Your task to perform on an android device: Open Yahoo.com Image 0: 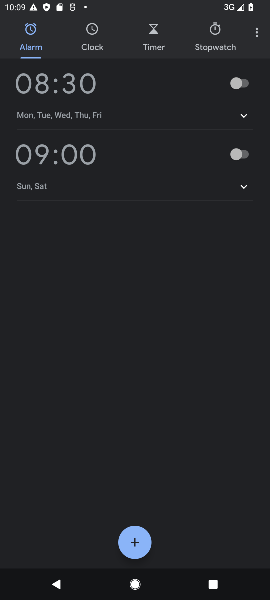
Step 0: press home button
Your task to perform on an android device: Open Yahoo.com Image 1: 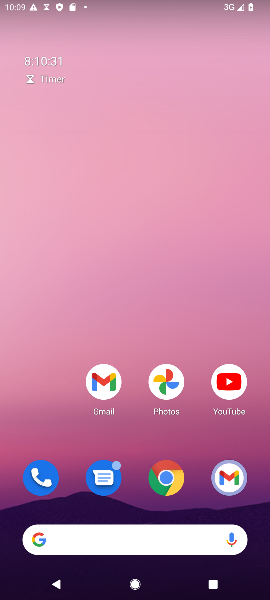
Step 1: click (169, 485)
Your task to perform on an android device: Open Yahoo.com Image 2: 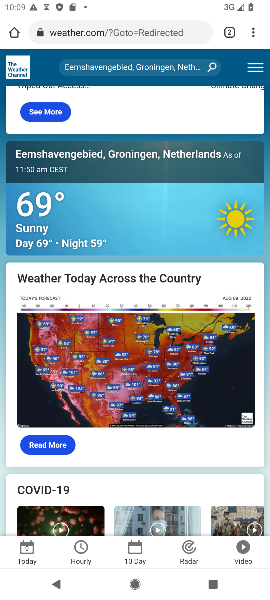
Step 2: click (225, 35)
Your task to perform on an android device: Open Yahoo.com Image 3: 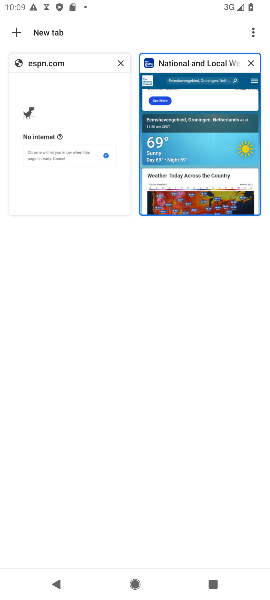
Step 3: click (52, 34)
Your task to perform on an android device: Open Yahoo.com Image 4: 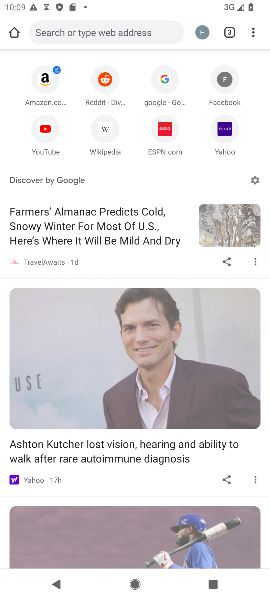
Step 4: click (228, 154)
Your task to perform on an android device: Open Yahoo.com Image 5: 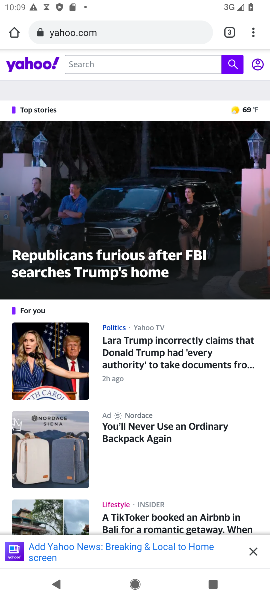
Step 5: task complete